Your task to perform on an android device: Do I have any events today? Image 0: 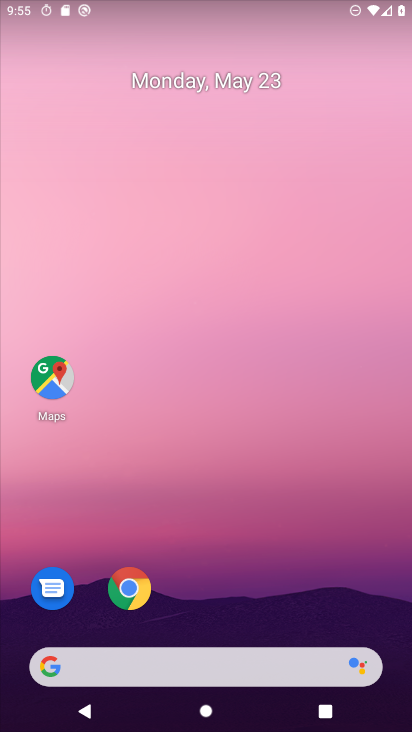
Step 0: drag from (389, 704) to (391, 297)
Your task to perform on an android device: Do I have any events today? Image 1: 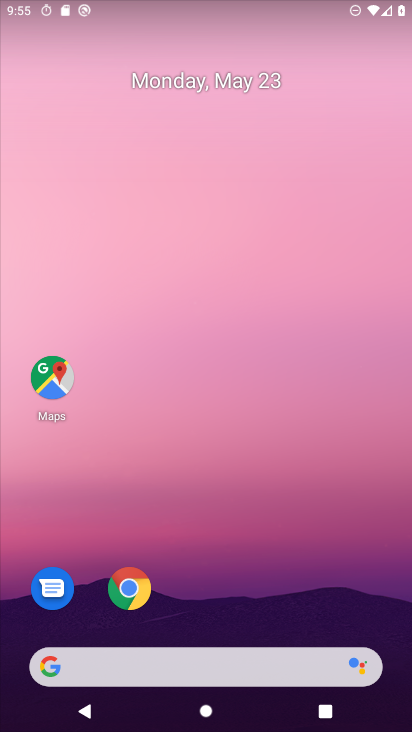
Step 1: drag from (401, 593) to (385, 227)
Your task to perform on an android device: Do I have any events today? Image 2: 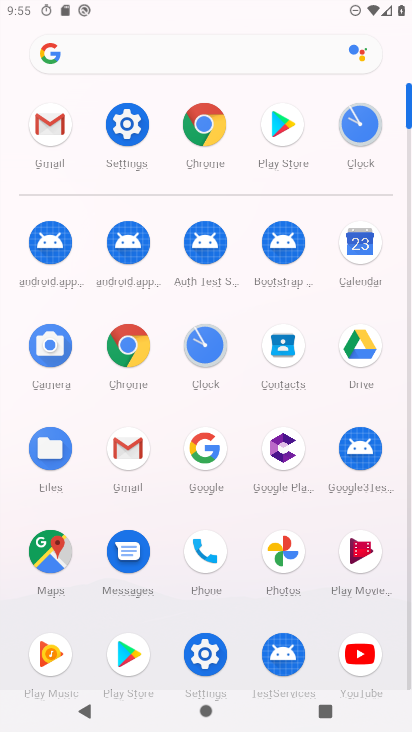
Step 2: click (362, 248)
Your task to perform on an android device: Do I have any events today? Image 3: 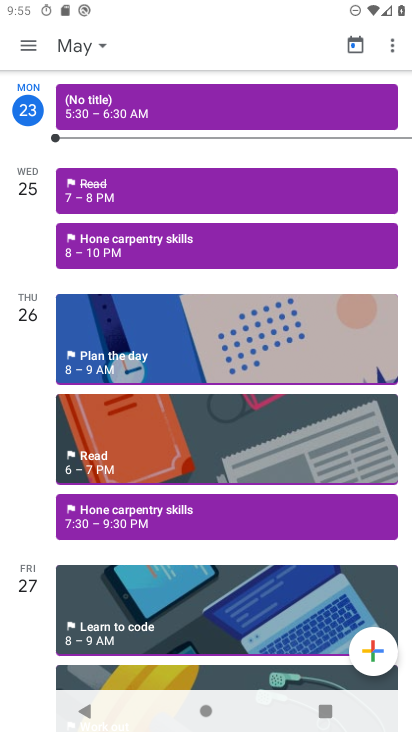
Step 3: click (99, 47)
Your task to perform on an android device: Do I have any events today? Image 4: 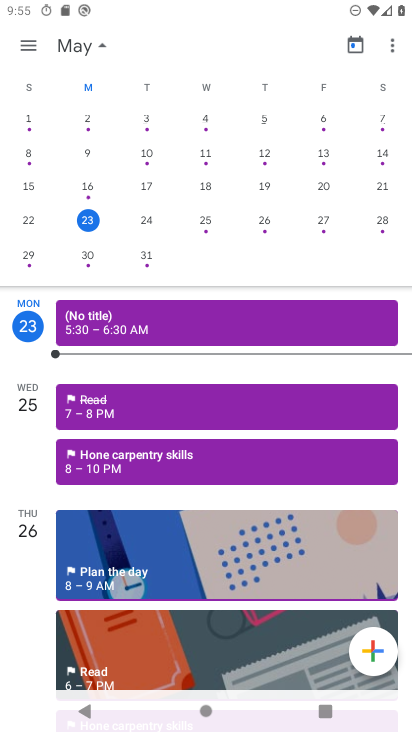
Step 4: click (85, 219)
Your task to perform on an android device: Do I have any events today? Image 5: 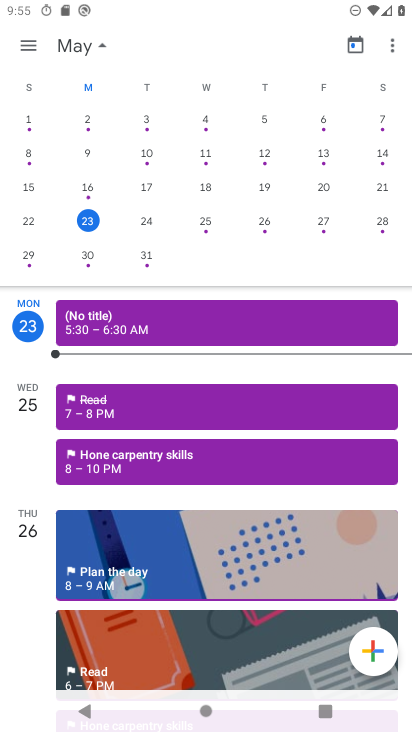
Step 5: task complete